Your task to perform on an android device: Go to Amazon Image 0: 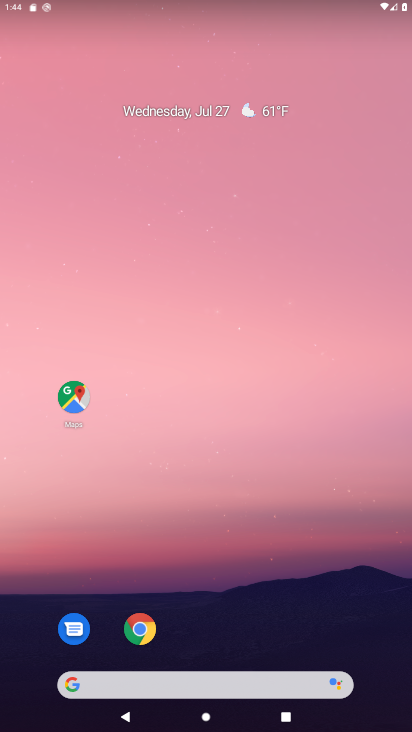
Step 0: click (149, 651)
Your task to perform on an android device: Go to Amazon Image 1: 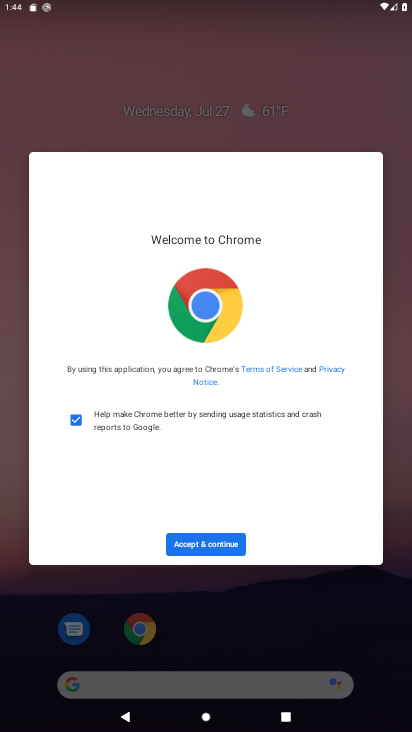
Step 1: click (221, 551)
Your task to perform on an android device: Go to Amazon Image 2: 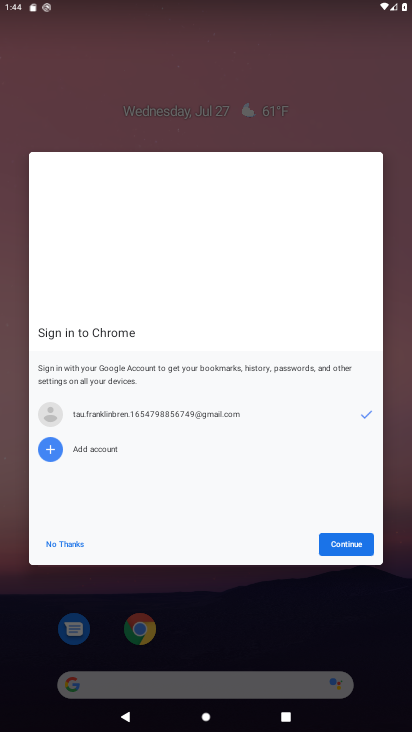
Step 2: click (356, 542)
Your task to perform on an android device: Go to Amazon Image 3: 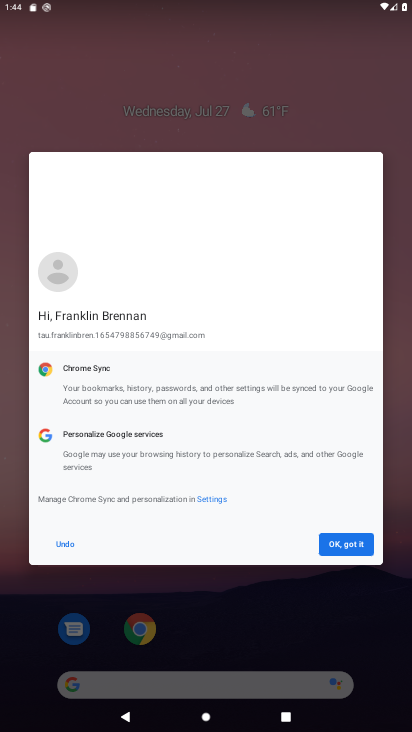
Step 3: click (342, 542)
Your task to perform on an android device: Go to Amazon Image 4: 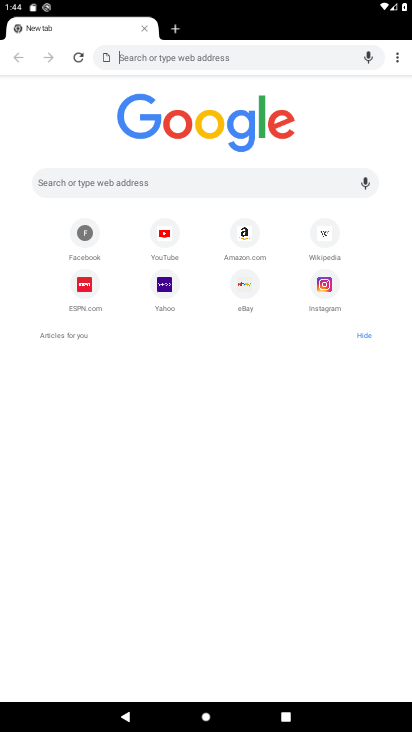
Step 4: click (246, 232)
Your task to perform on an android device: Go to Amazon Image 5: 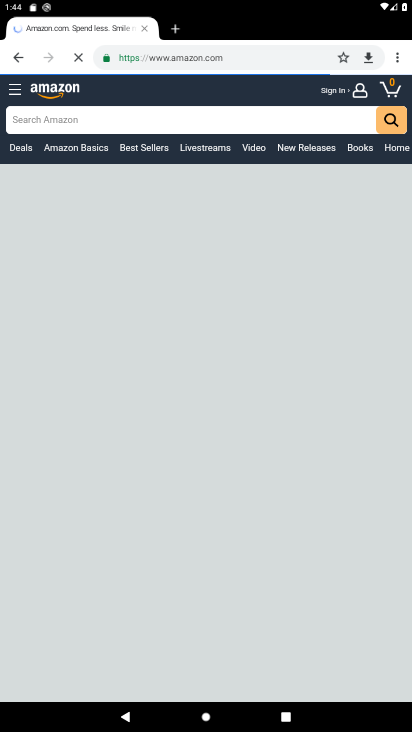
Step 5: task complete